Your task to perform on an android device: show emergency info Image 0: 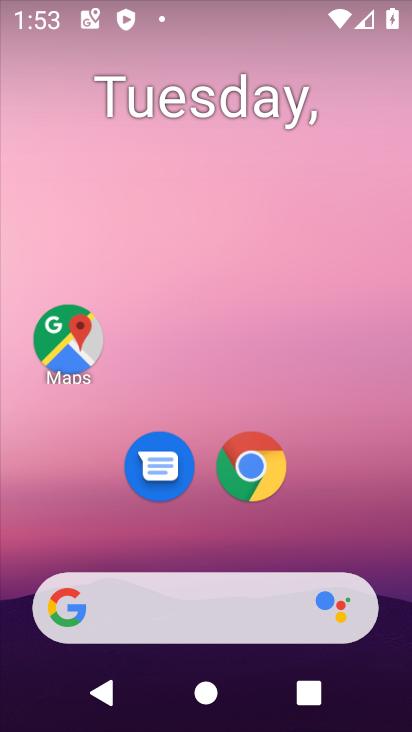
Step 0: drag from (382, 517) to (290, 22)
Your task to perform on an android device: show emergency info Image 1: 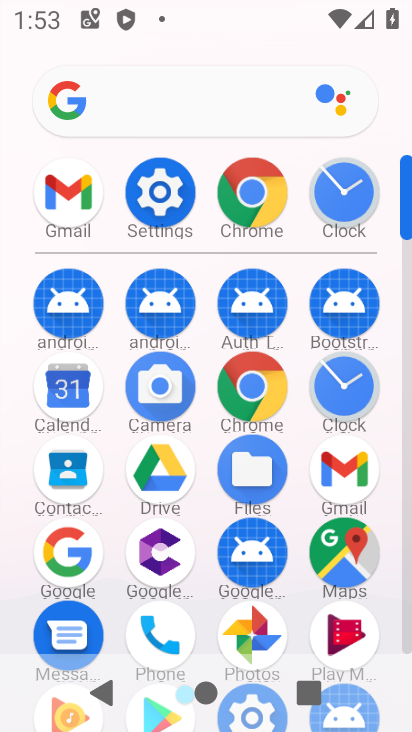
Step 1: click (152, 230)
Your task to perform on an android device: show emergency info Image 2: 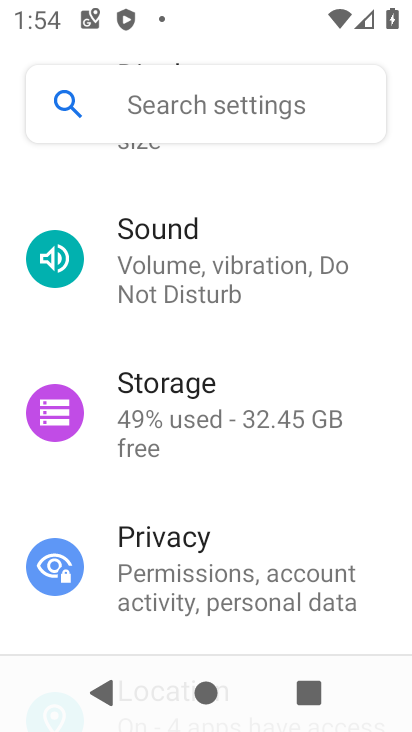
Step 2: drag from (188, 513) to (126, 98)
Your task to perform on an android device: show emergency info Image 3: 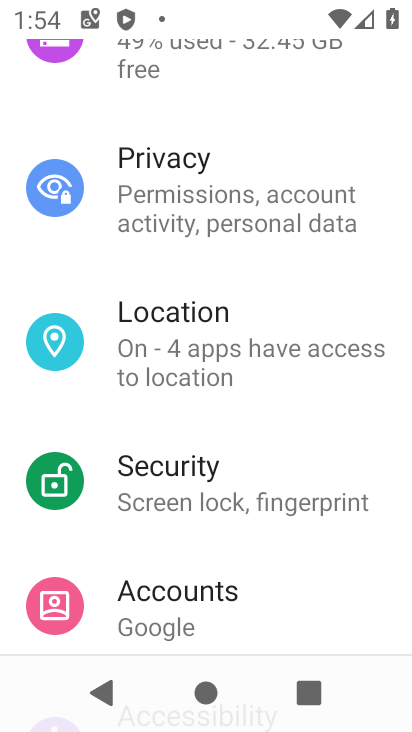
Step 3: drag from (118, 629) to (108, 15)
Your task to perform on an android device: show emergency info Image 4: 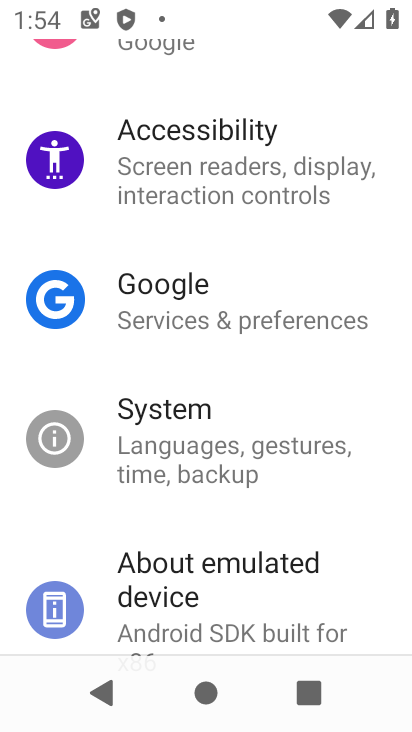
Step 4: click (201, 591)
Your task to perform on an android device: show emergency info Image 5: 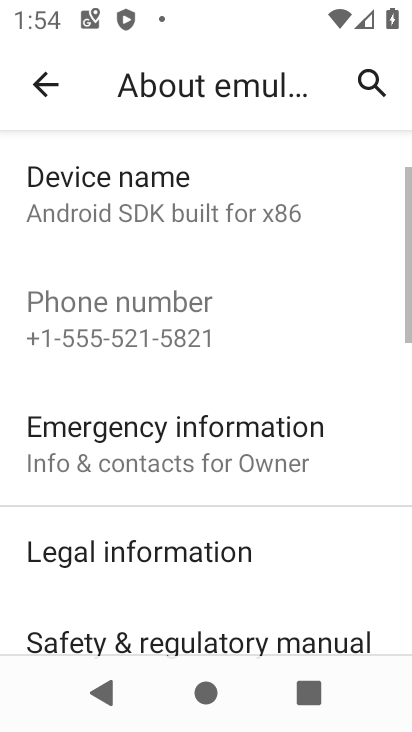
Step 5: click (220, 480)
Your task to perform on an android device: show emergency info Image 6: 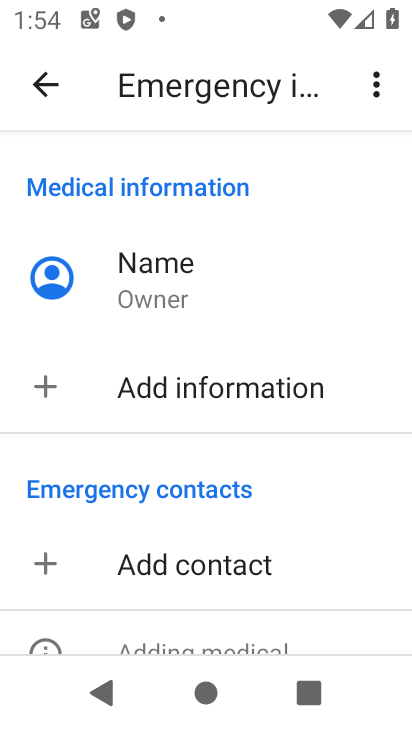
Step 6: task complete